Your task to perform on an android device: Search for sushi restaurants on Maps Image 0: 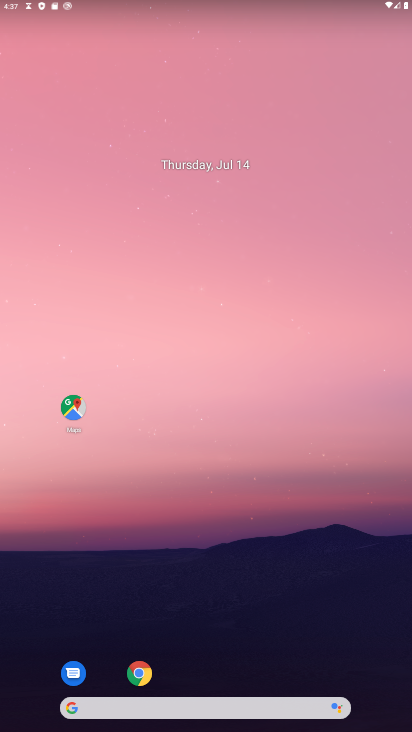
Step 0: drag from (212, 18) to (158, 78)
Your task to perform on an android device: Search for sushi restaurants on Maps Image 1: 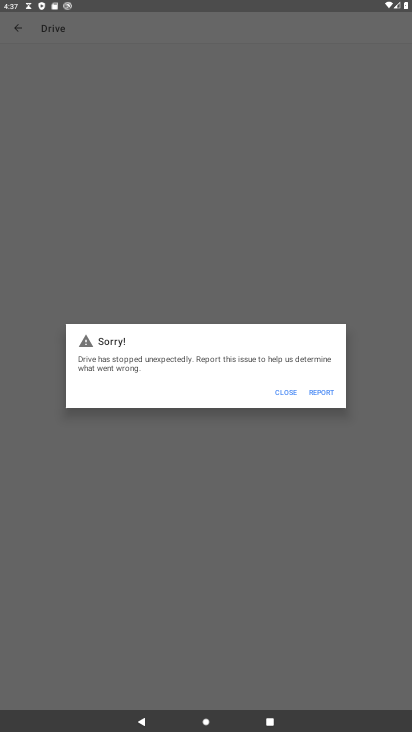
Step 1: drag from (261, 575) to (234, 204)
Your task to perform on an android device: Search for sushi restaurants on Maps Image 2: 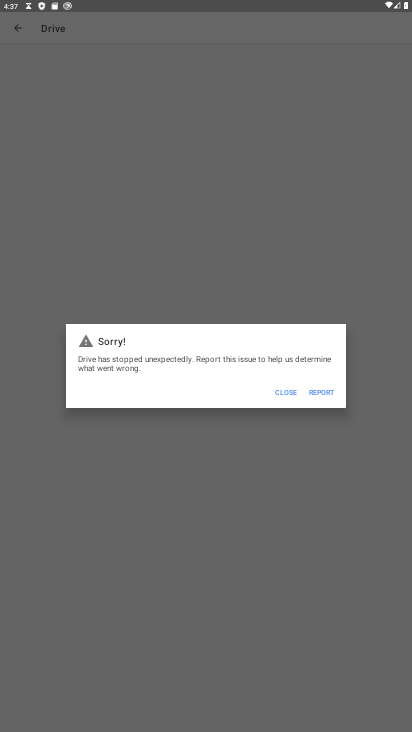
Step 2: click (279, 393)
Your task to perform on an android device: Search for sushi restaurants on Maps Image 3: 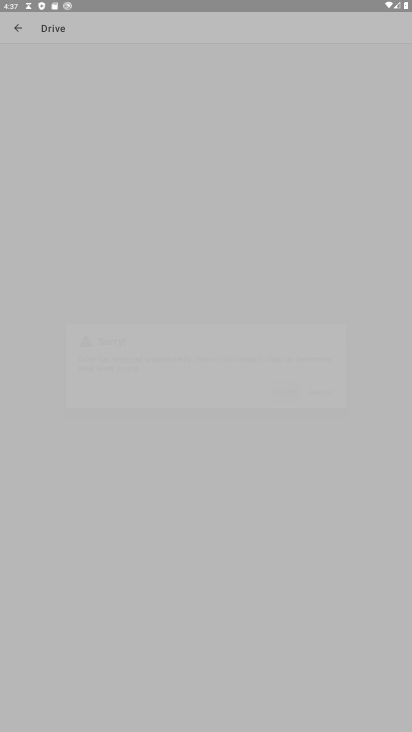
Step 3: click (287, 386)
Your task to perform on an android device: Search for sushi restaurants on Maps Image 4: 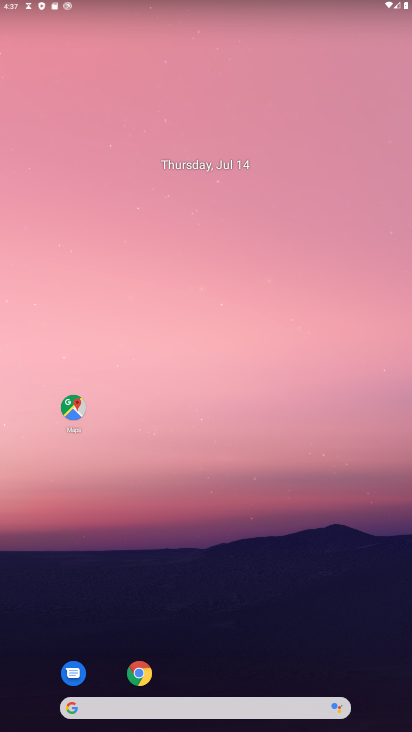
Step 4: drag from (241, 629) to (223, 60)
Your task to perform on an android device: Search for sushi restaurants on Maps Image 5: 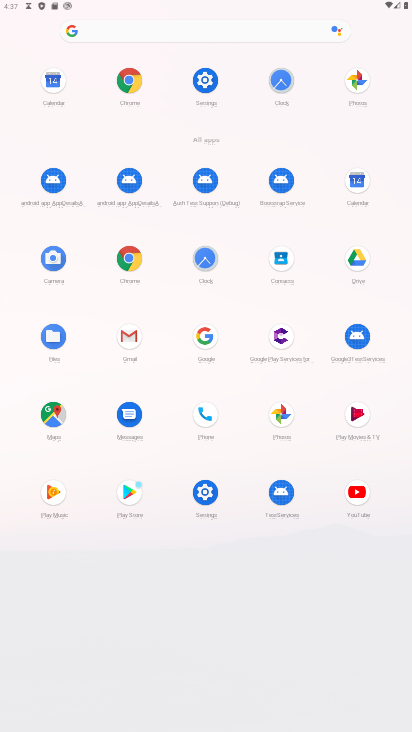
Step 5: click (48, 412)
Your task to perform on an android device: Search for sushi restaurants on Maps Image 6: 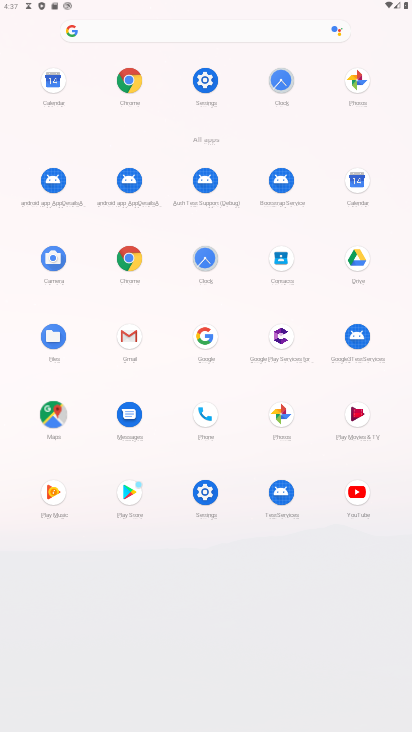
Step 6: click (47, 413)
Your task to perform on an android device: Search for sushi restaurants on Maps Image 7: 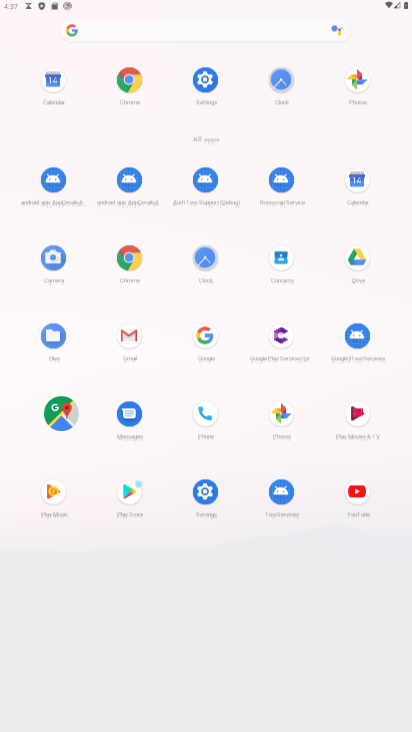
Step 7: click (47, 415)
Your task to perform on an android device: Search for sushi restaurants on Maps Image 8: 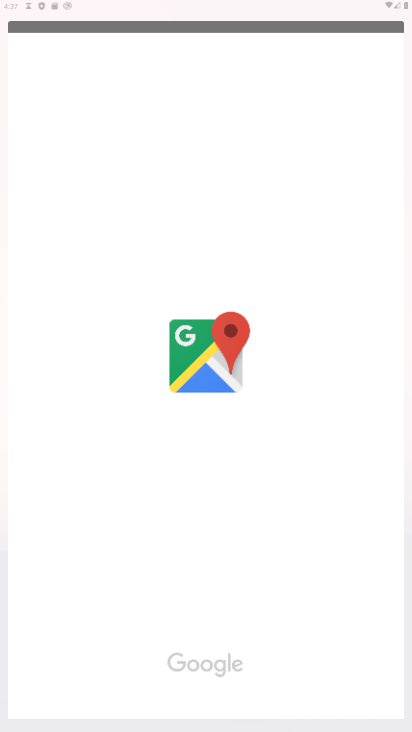
Step 8: click (47, 416)
Your task to perform on an android device: Search for sushi restaurants on Maps Image 9: 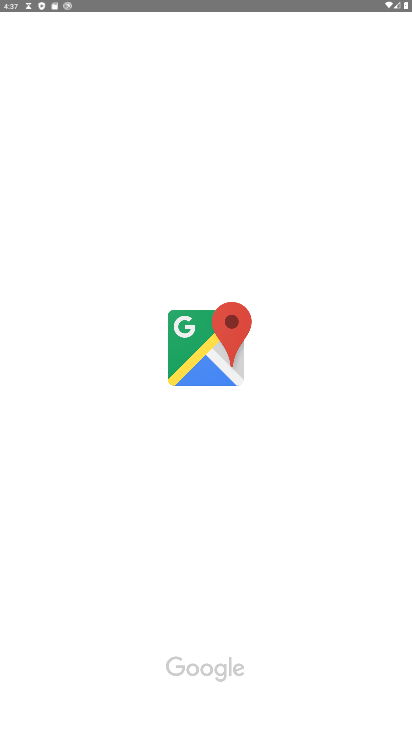
Step 9: click (49, 416)
Your task to perform on an android device: Search for sushi restaurants on Maps Image 10: 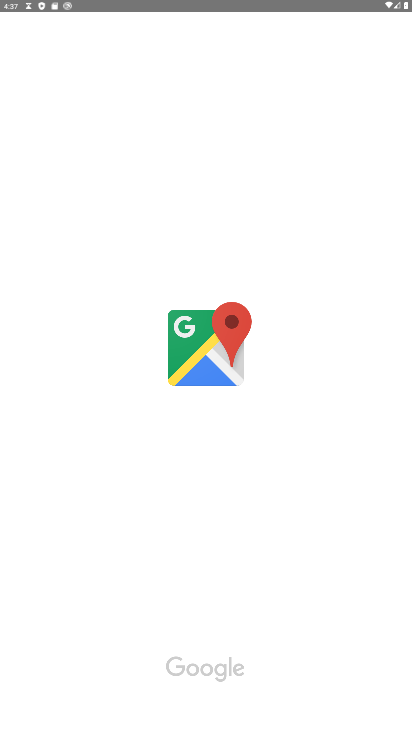
Step 10: click (53, 416)
Your task to perform on an android device: Search for sushi restaurants on Maps Image 11: 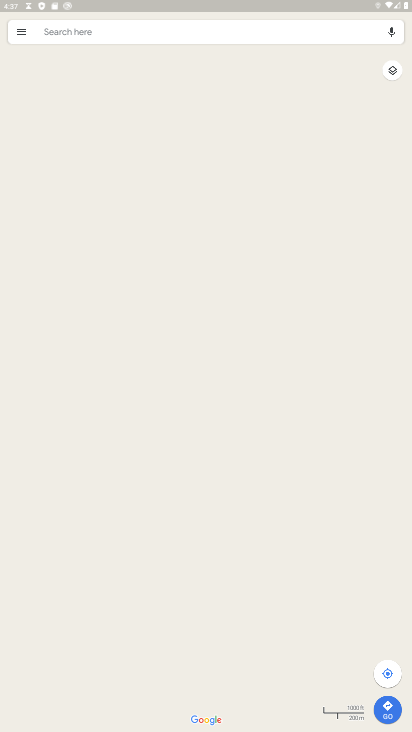
Step 11: click (75, 30)
Your task to perform on an android device: Search for sushi restaurants on Maps Image 12: 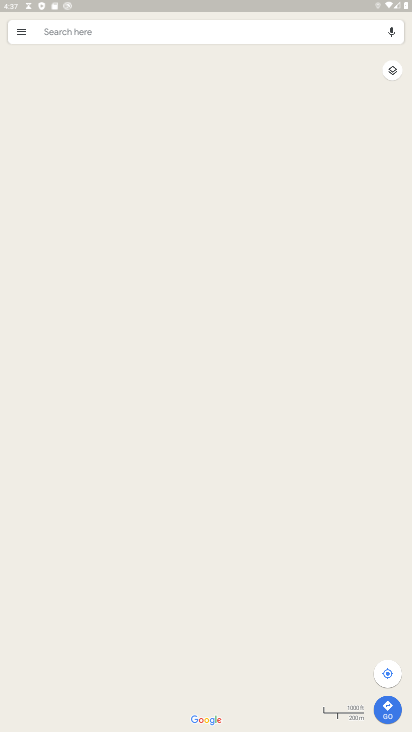
Step 12: click (76, 33)
Your task to perform on an android device: Search for sushi restaurants on Maps Image 13: 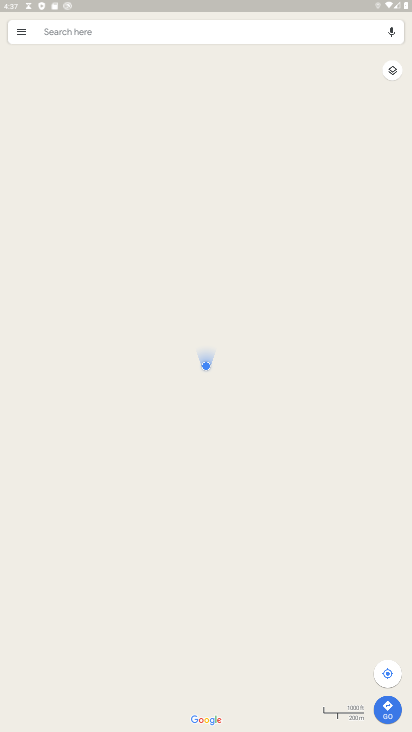
Step 13: click (78, 35)
Your task to perform on an android device: Search for sushi restaurants on Maps Image 14: 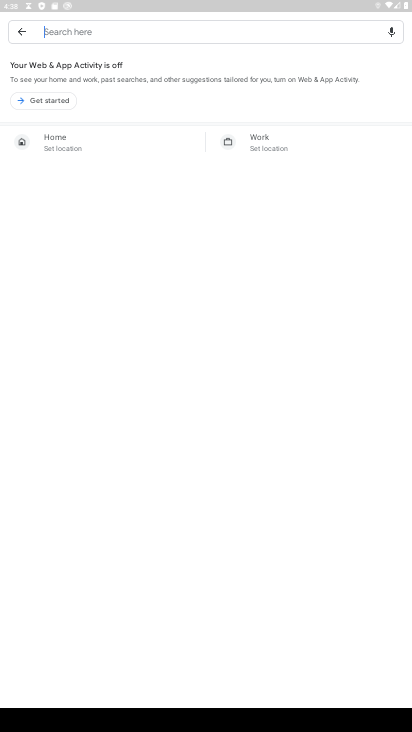
Step 14: type "sushi restaurants"
Your task to perform on an android device: Search for sushi restaurants on Maps Image 15: 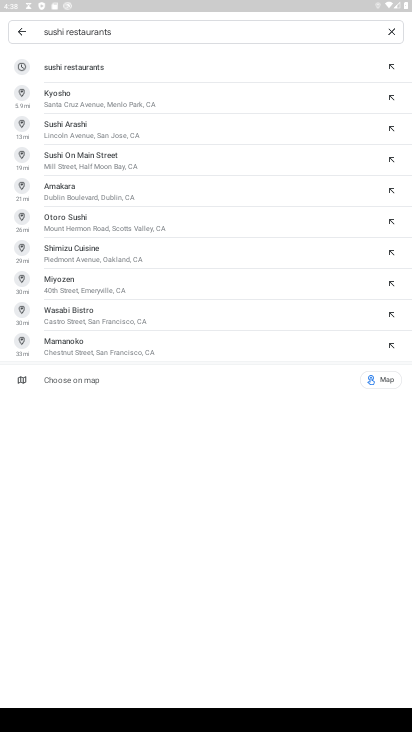
Step 15: click (81, 68)
Your task to perform on an android device: Search for sushi restaurants on Maps Image 16: 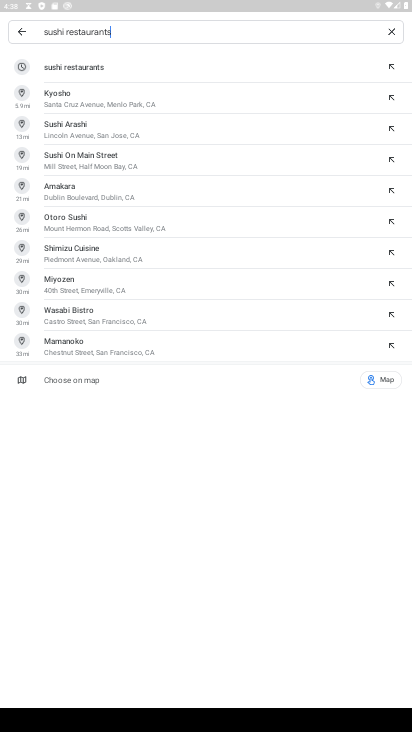
Step 16: click (81, 68)
Your task to perform on an android device: Search for sushi restaurants on Maps Image 17: 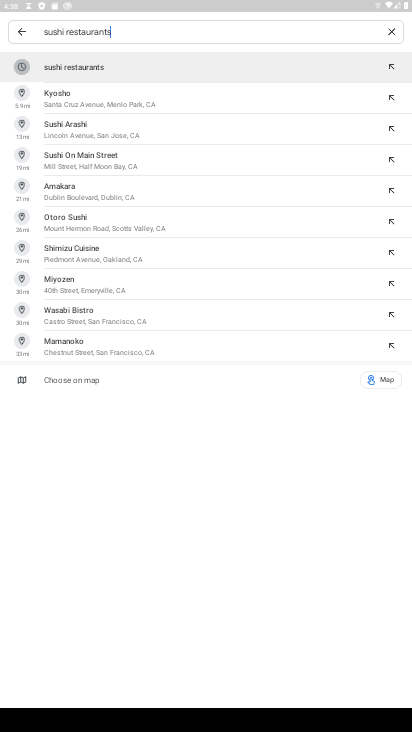
Step 17: click (81, 68)
Your task to perform on an android device: Search for sushi restaurants on Maps Image 18: 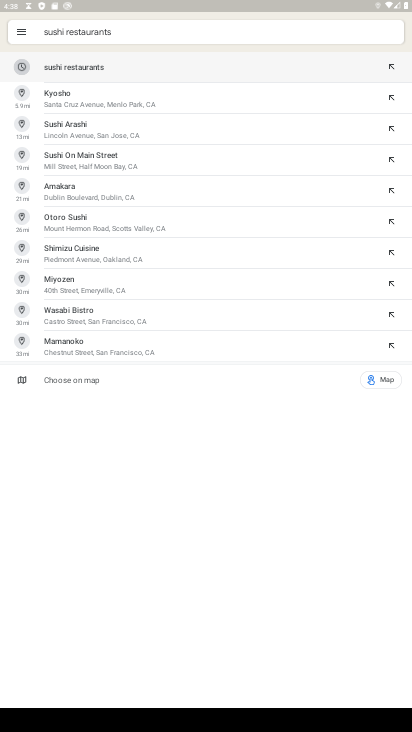
Step 18: drag from (85, 70) to (121, 70)
Your task to perform on an android device: Search for sushi restaurants on Maps Image 19: 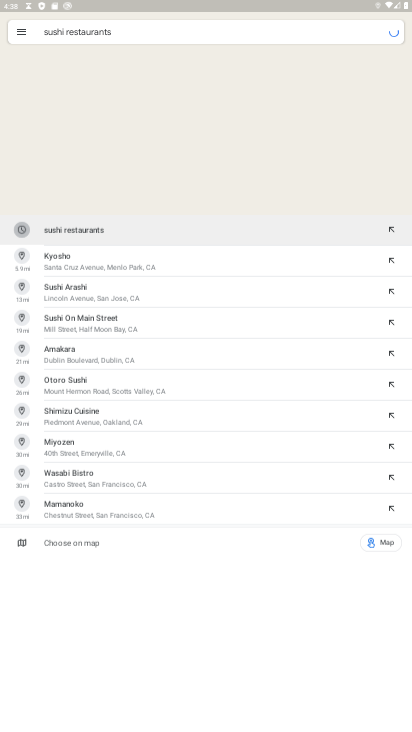
Step 19: click (128, 68)
Your task to perform on an android device: Search for sushi restaurants on Maps Image 20: 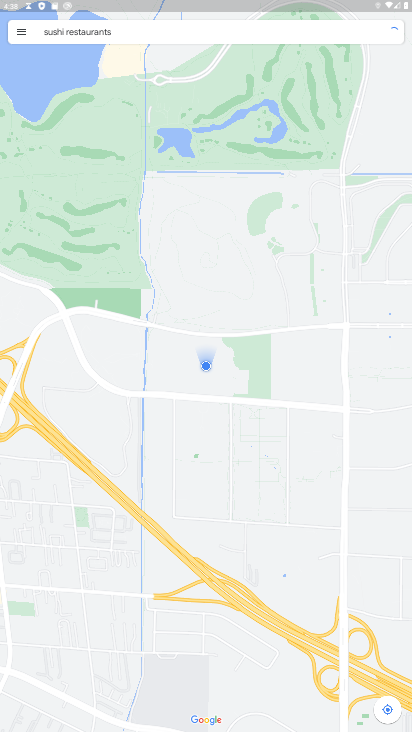
Step 20: task complete